Your task to perform on an android device: Go to Maps Image 0: 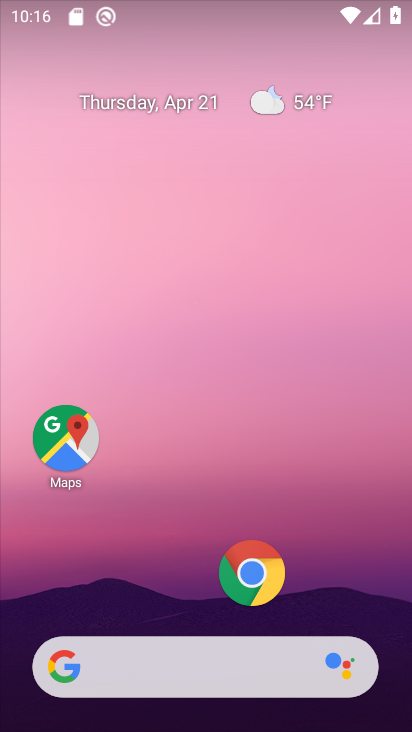
Step 0: click (90, 434)
Your task to perform on an android device: Go to Maps Image 1: 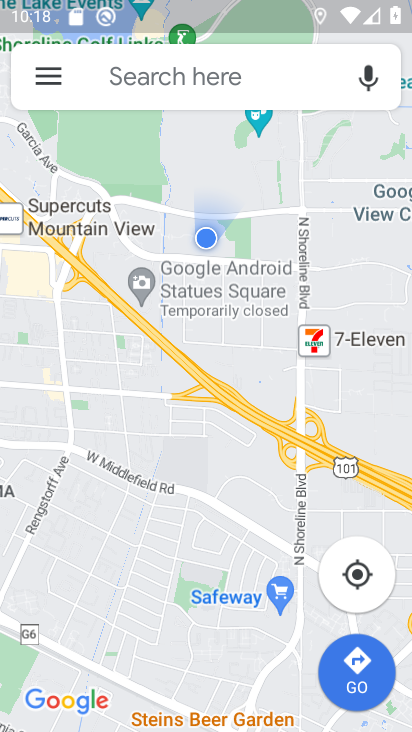
Step 1: task complete